Your task to perform on an android device: Show me the alarms in the clock app Image 0: 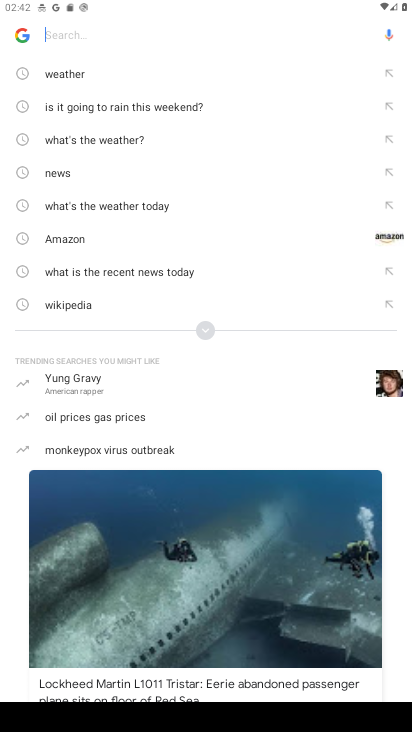
Step 0: press home button
Your task to perform on an android device: Show me the alarms in the clock app Image 1: 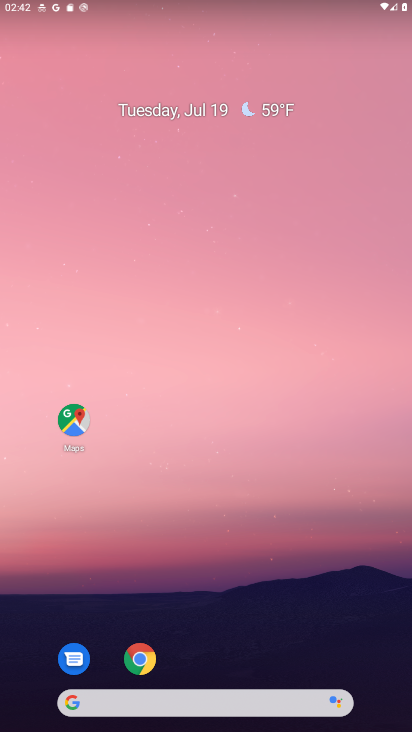
Step 1: drag from (240, 686) to (193, 177)
Your task to perform on an android device: Show me the alarms in the clock app Image 2: 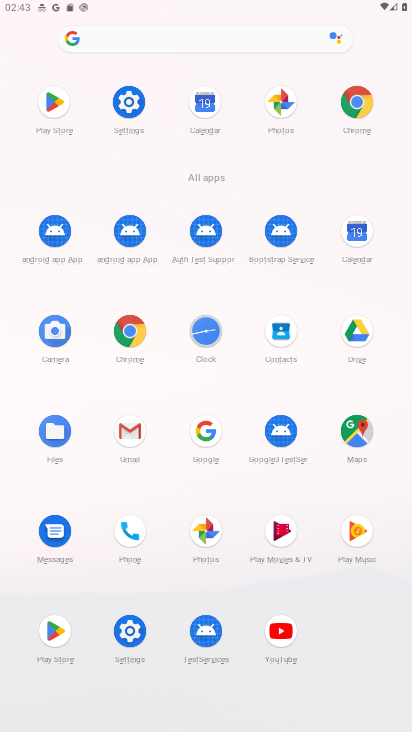
Step 2: click (200, 333)
Your task to perform on an android device: Show me the alarms in the clock app Image 3: 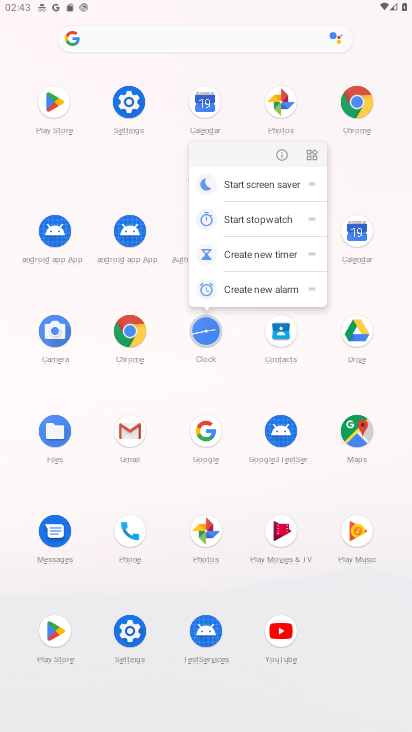
Step 3: click (212, 336)
Your task to perform on an android device: Show me the alarms in the clock app Image 4: 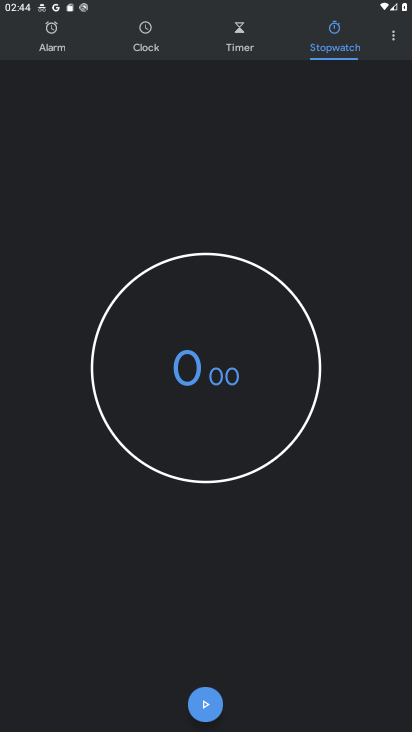
Step 4: click (60, 44)
Your task to perform on an android device: Show me the alarms in the clock app Image 5: 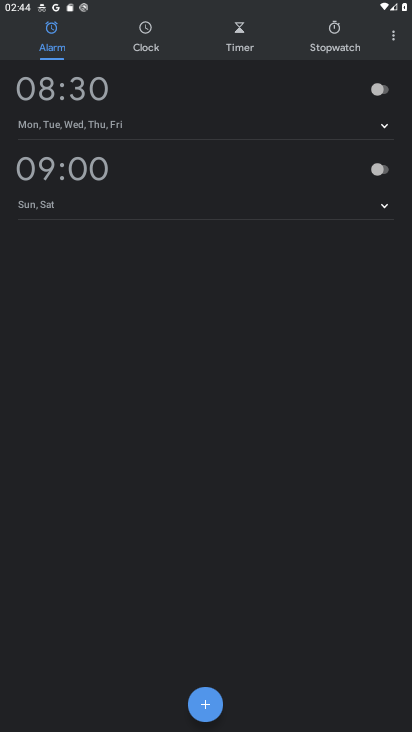
Step 5: task complete